Your task to perform on an android device: Open the map Image 0: 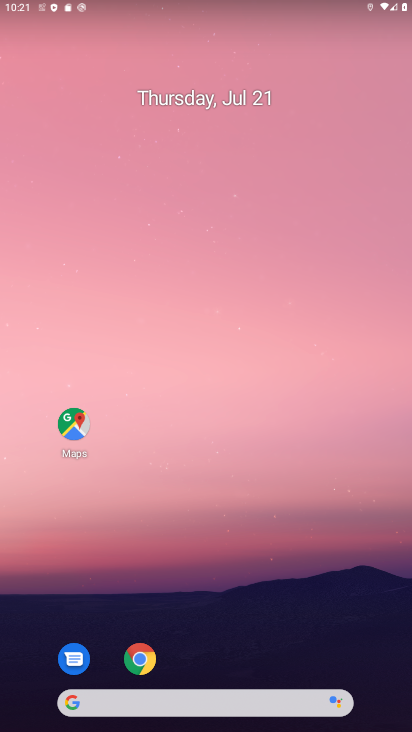
Step 0: click (74, 424)
Your task to perform on an android device: Open the map Image 1: 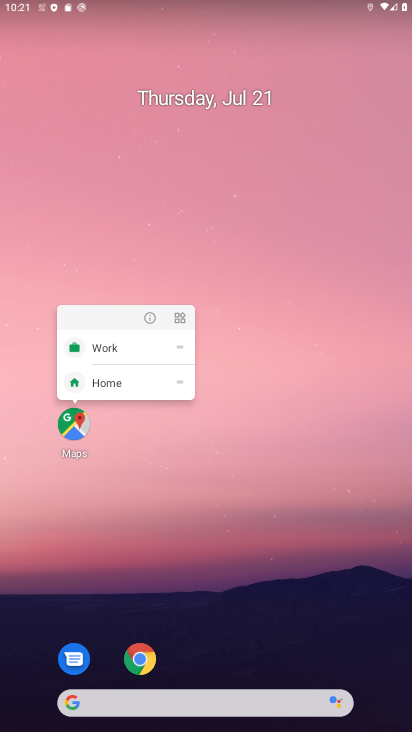
Step 1: click (72, 428)
Your task to perform on an android device: Open the map Image 2: 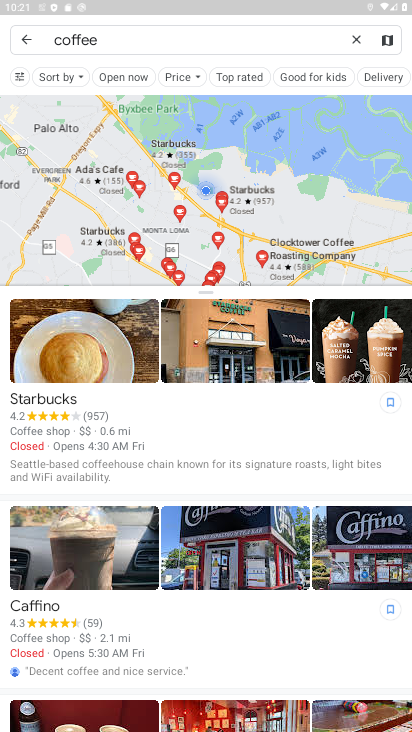
Step 2: task complete